Your task to perform on an android device: Is it going to rain today? Image 0: 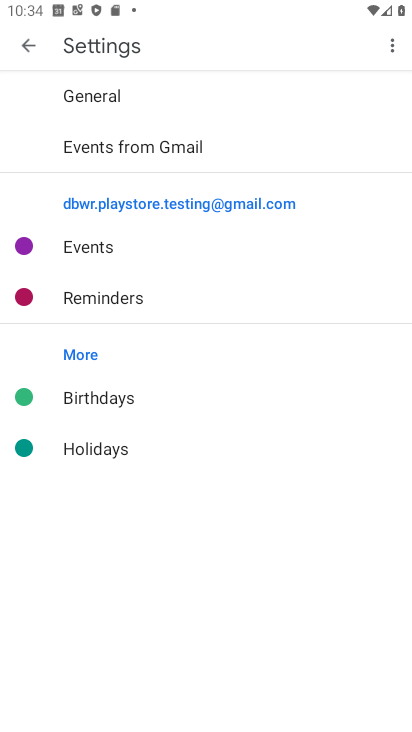
Step 0: press home button
Your task to perform on an android device: Is it going to rain today? Image 1: 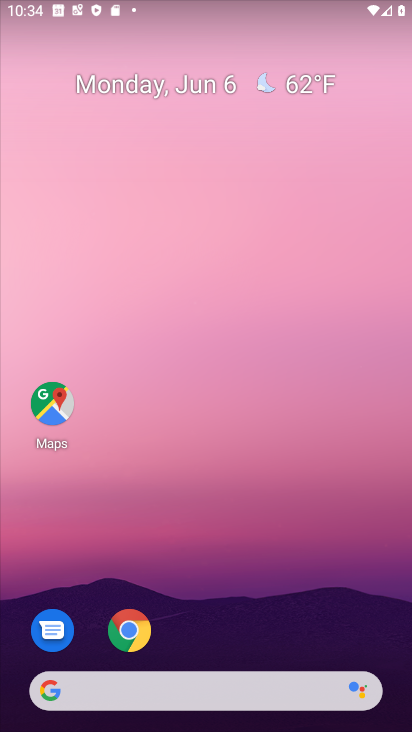
Step 1: drag from (294, 623) to (301, 182)
Your task to perform on an android device: Is it going to rain today? Image 2: 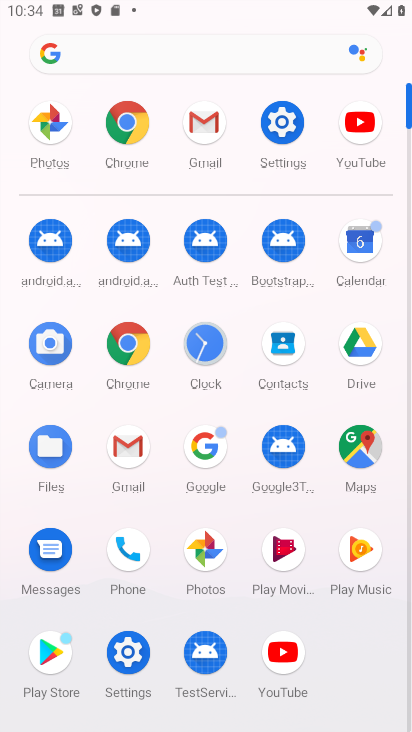
Step 2: click (133, 345)
Your task to perform on an android device: Is it going to rain today? Image 3: 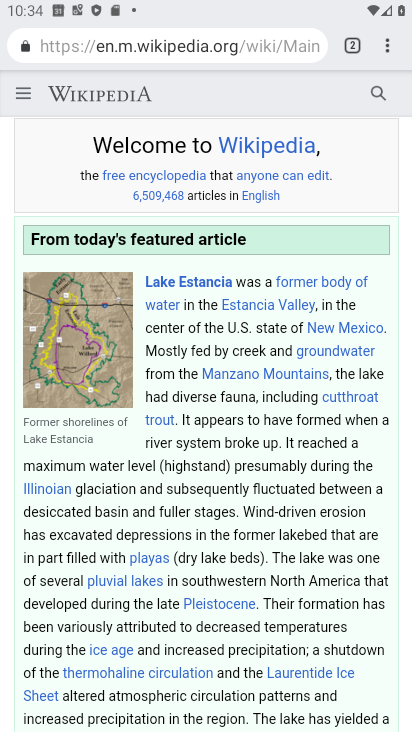
Step 3: click (171, 47)
Your task to perform on an android device: Is it going to rain today? Image 4: 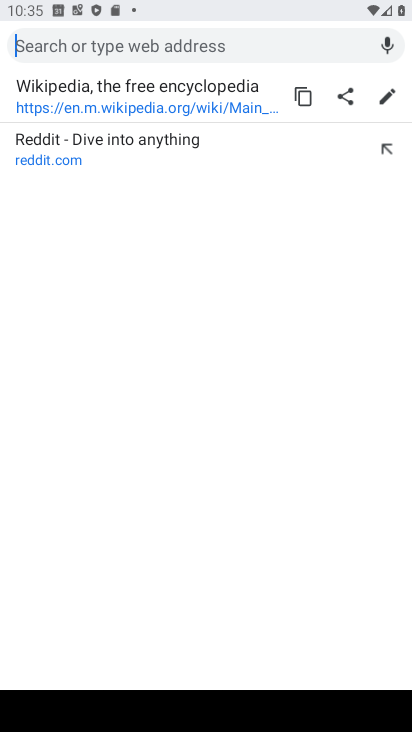
Step 4: type "is it going to rain today"
Your task to perform on an android device: Is it going to rain today? Image 5: 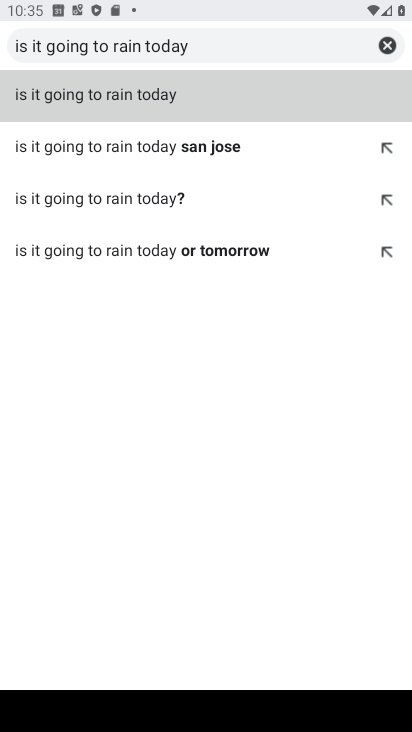
Step 5: click (154, 103)
Your task to perform on an android device: Is it going to rain today? Image 6: 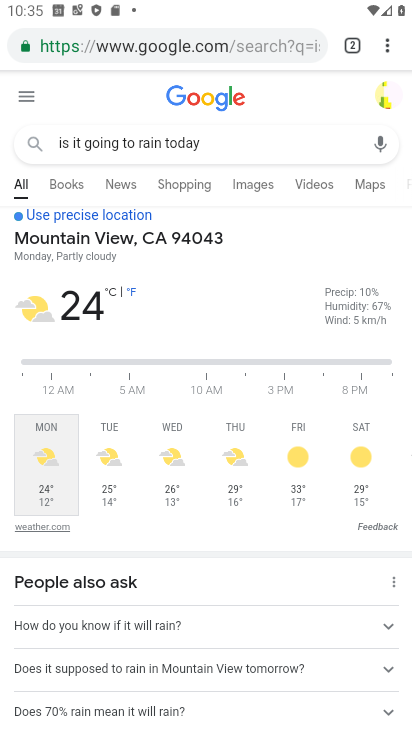
Step 6: task complete